Your task to perform on an android device: turn on notifications settings in the gmail app Image 0: 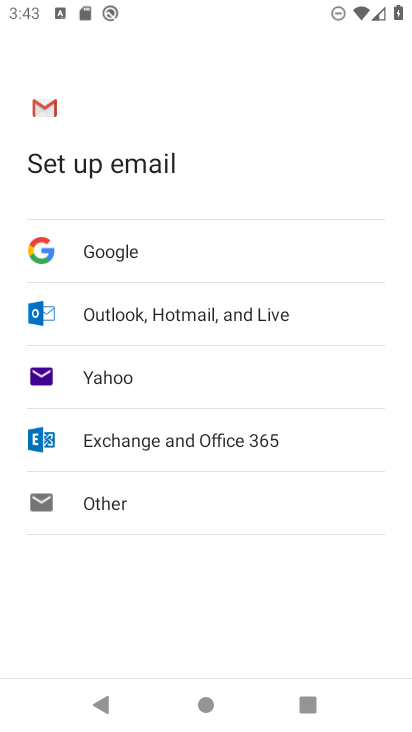
Step 0: press home button
Your task to perform on an android device: turn on notifications settings in the gmail app Image 1: 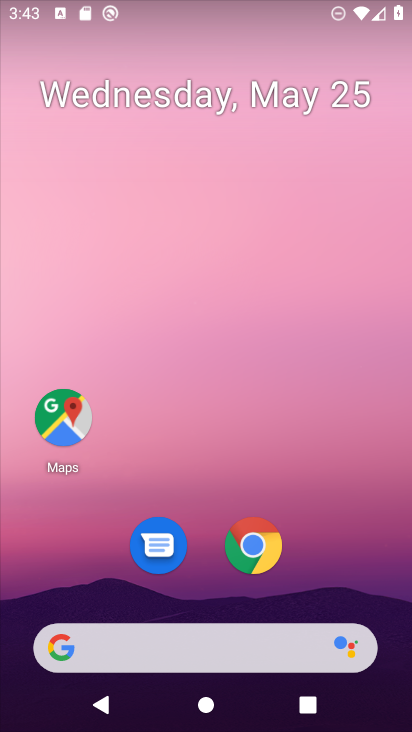
Step 1: drag from (339, 551) to (338, 156)
Your task to perform on an android device: turn on notifications settings in the gmail app Image 2: 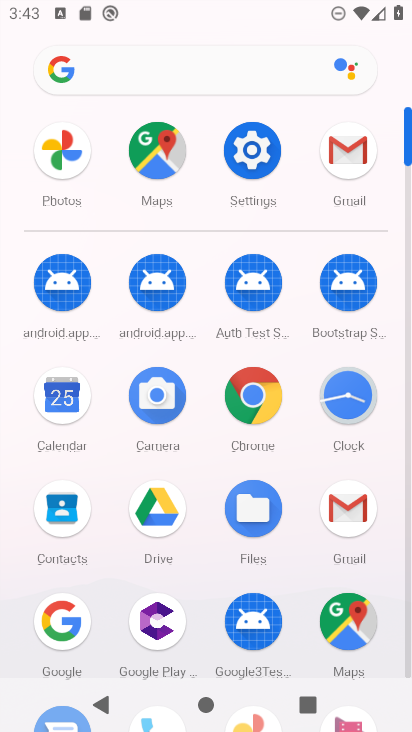
Step 2: click (374, 170)
Your task to perform on an android device: turn on notifications settings in the gmail app Image 3: 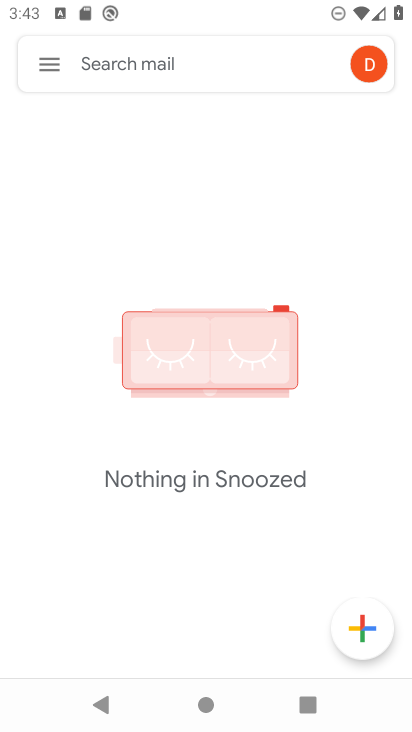
Step 3: task complete